Your task to perform on an android device: turn pop-ups on in chrome Image 0: 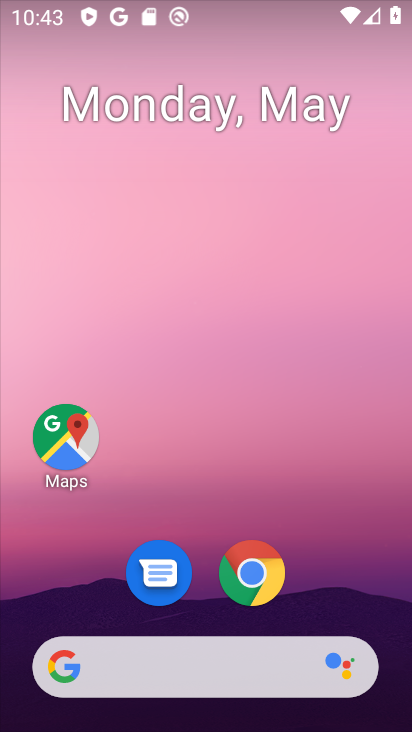
Step 0: click (255, 582)
Your task to perform on an android device: turn pop-ups on in chrome Image 1: 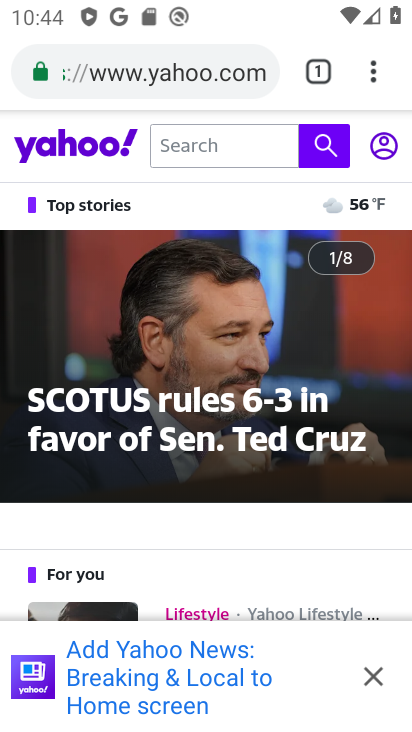
Step 1: click (371, 69)
Your task to perform on an android device: turn pop-ups on in chrome Image 2: 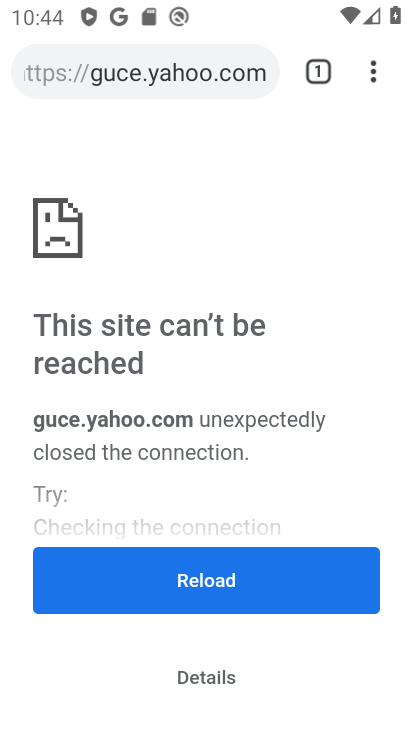
Step 2: drag from (374, 73) to (101, 564)
Your task to perform on an android device: turn pop-ups on in chrome Image 3: 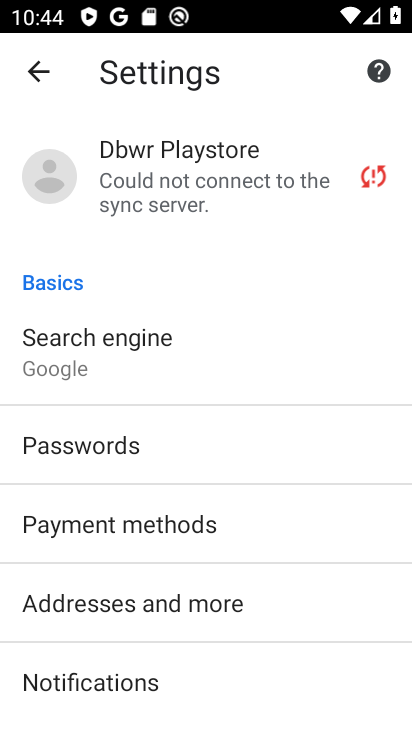
Step 3: drag from (139, 648) to (222, 118)
Your task to perform on an android device: turn pop-ups on in chrome Image 4: 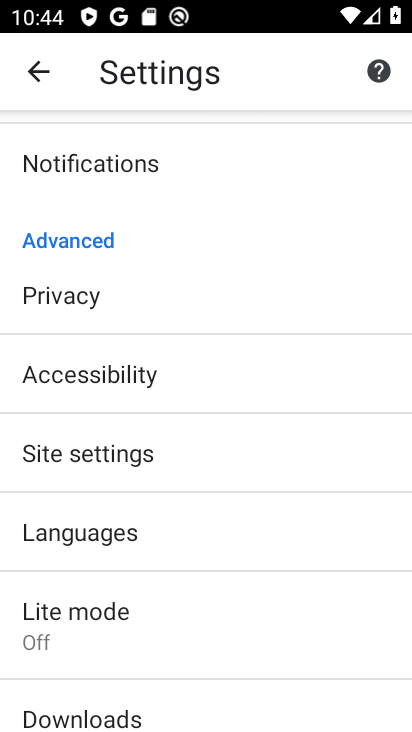
Step 4: click (106, 457)
Your task to perform on an android device: turn pop-ups on in chrome Image 5: 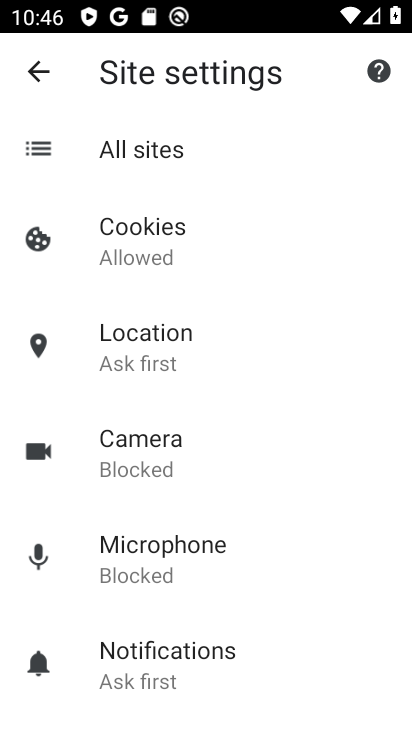
Step 5: drag from (176, 629) to (270, 107)
Your task to perform on an android device: turn pop-ups on in chrome Image 6: 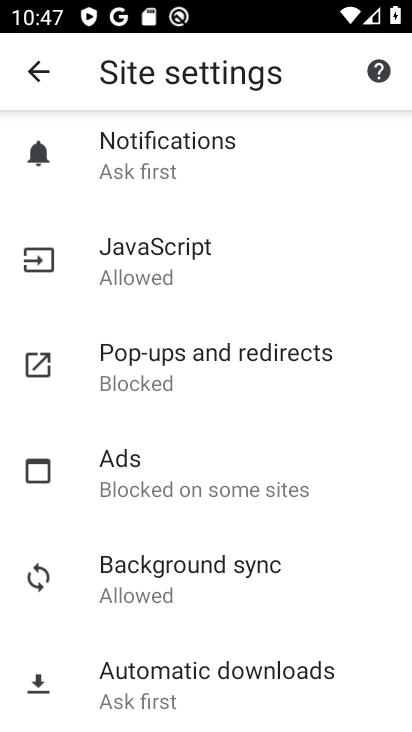
Step 6: drag from (165, 631) to (215, 354)
Your task to perform on an android device: turn pop-ups on in chrome Image 7: 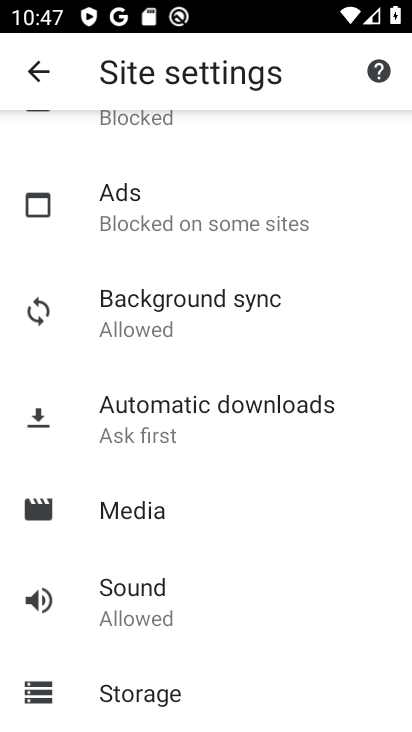
Step 7: click (136, 122)
Your task to perform on an android device: turn pop-ups on in chrome Image 8: 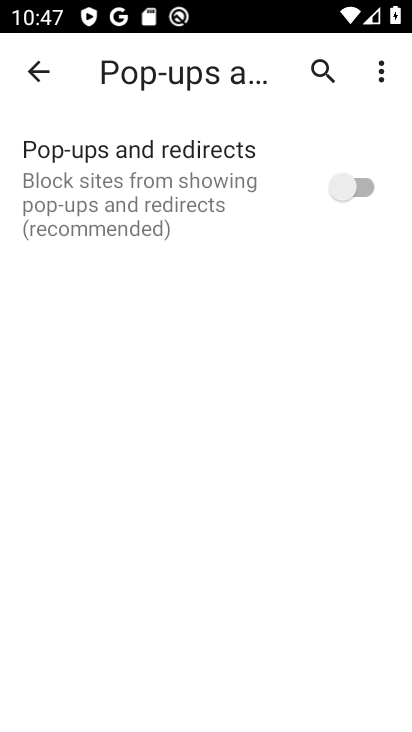
Step 8: click (351, 184)
Your task to perform on an android device: turn pop-ups on in chrome Image 9: 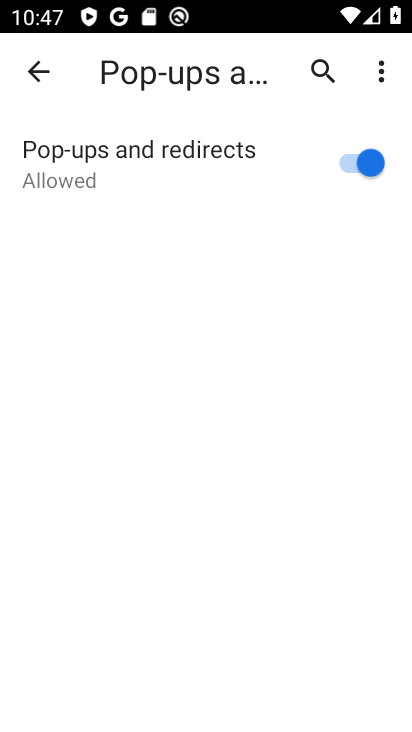
Step 9: task complete